Your task to perform on an android device: open app "Spotify: Music and Podcasts" (install if not already installed) Image 0: 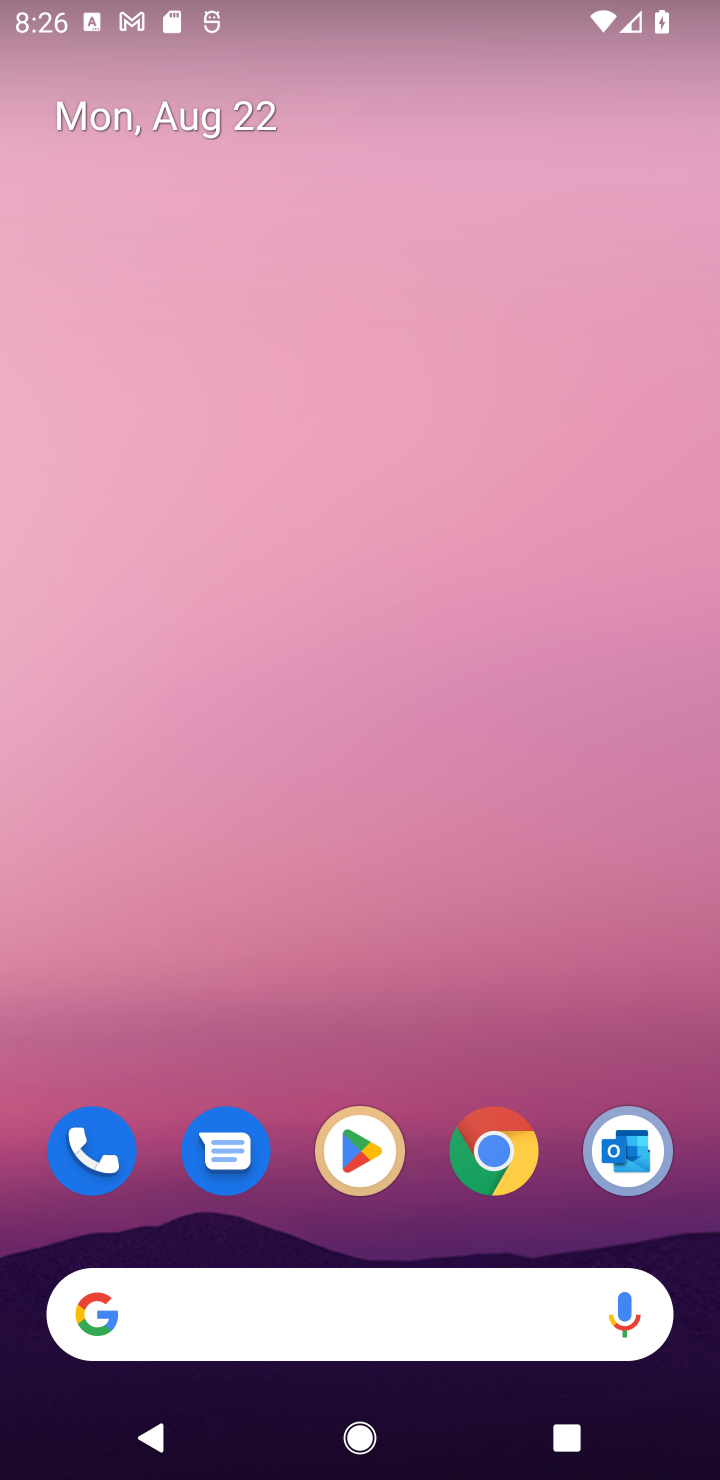
Step 0: click (372, 1152)
Your task to perform on an android device: open app "Spotify: Music and Podcasts" (install if not already installed) Image 1: 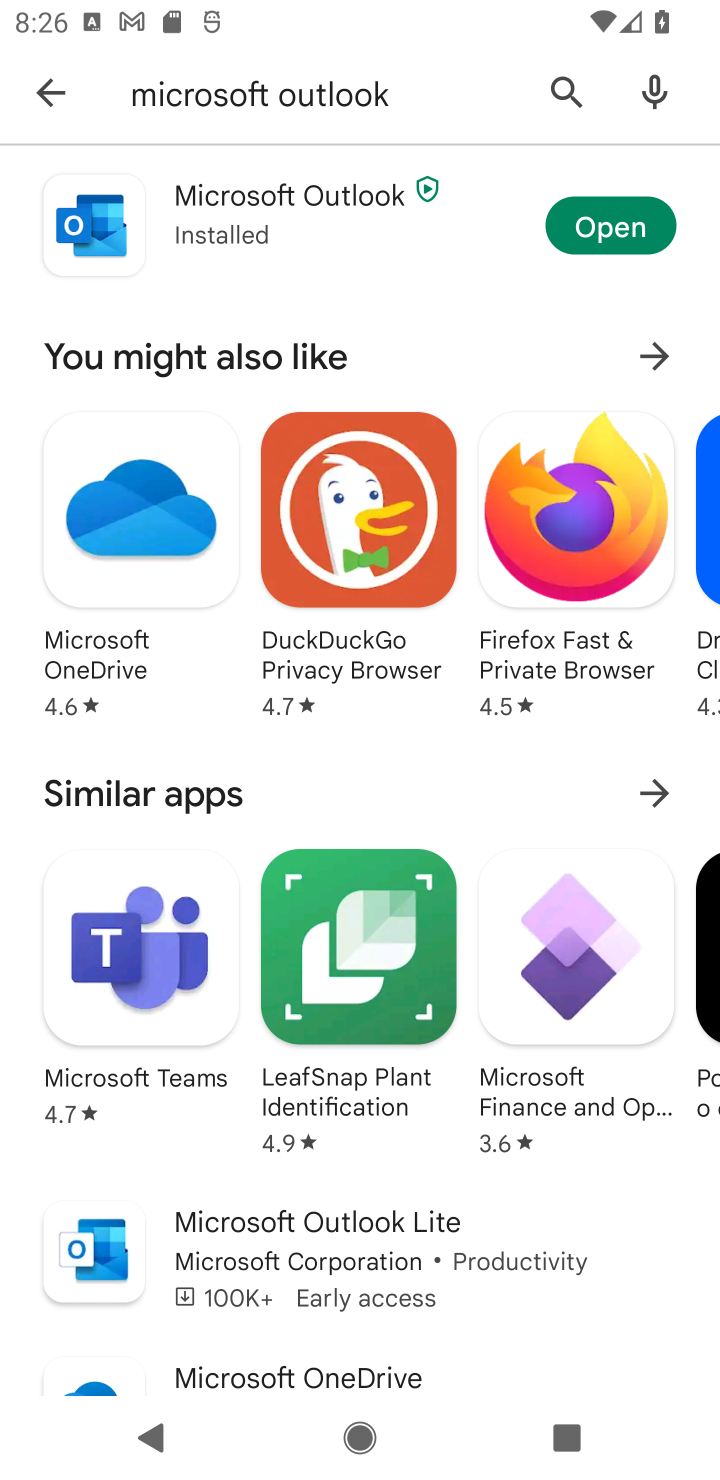
Step 1: click (564, 89)
Your task to perform on an android device: open app "Spotify: Music and Podcasts" (install if not already installed) Image 2: 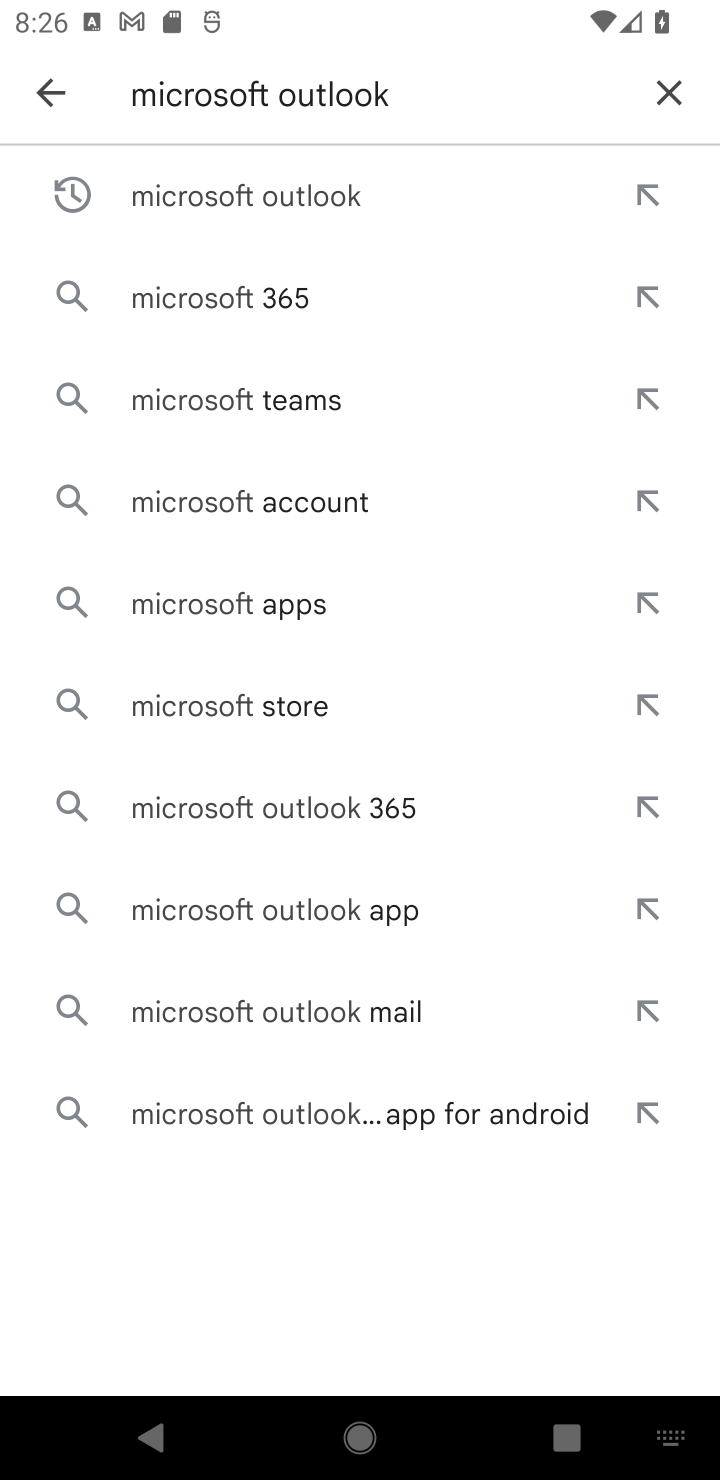
Step 2: click (656, 89)
Your task to perform on an android device: open app "Spotify: Music and Podcasts" (install if not already installed) Image 3: 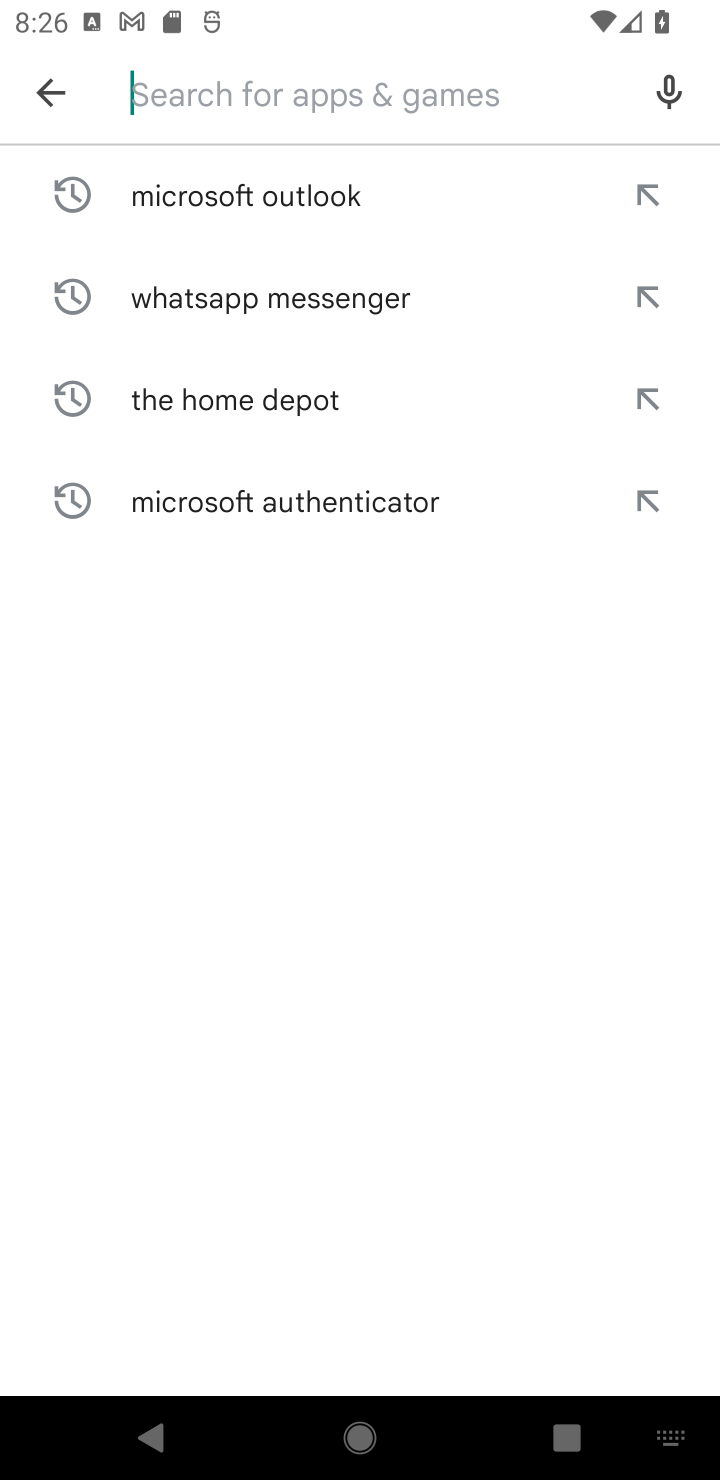
Step 3: type "Spotify: Music and Podcasts"
Your task to perform on an android device: open app "Spotify: Music and Podcasts" (install if not already installed) Image 4: 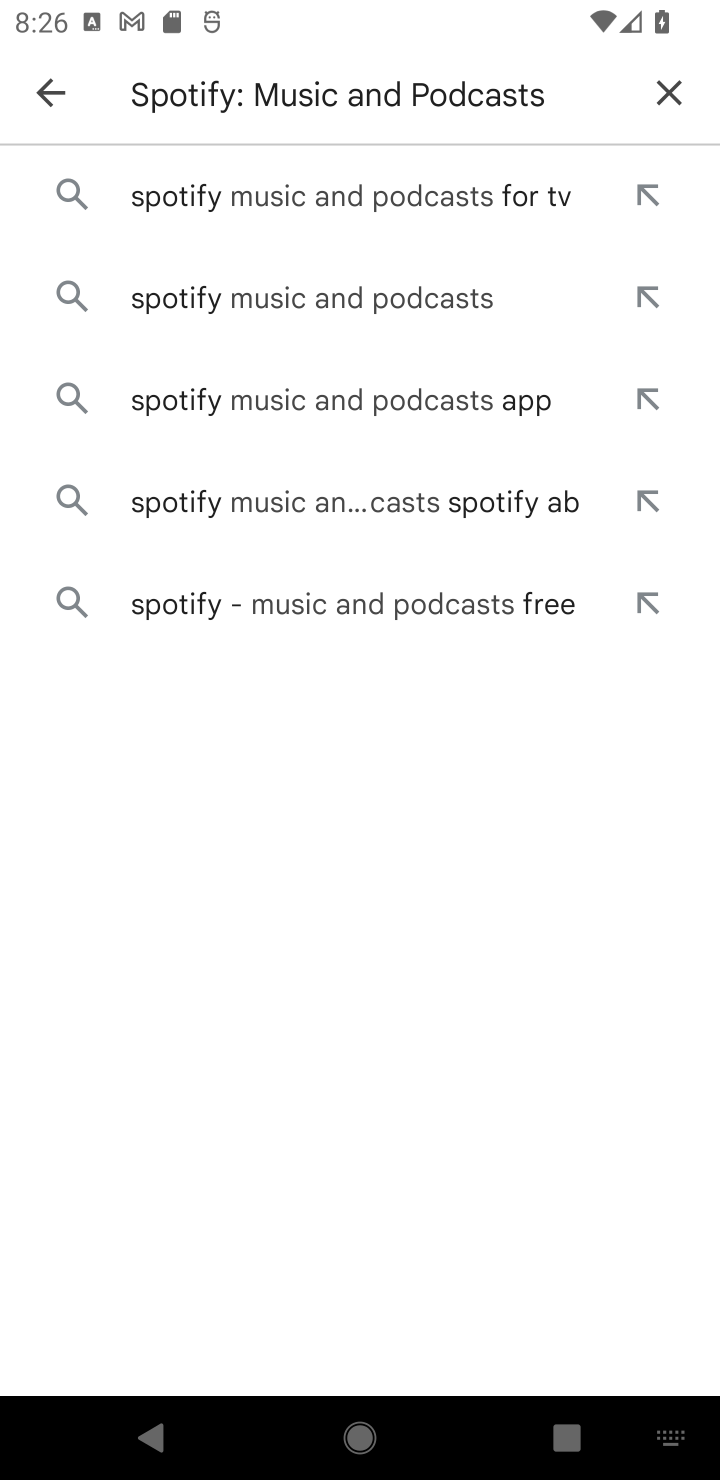
Step 4: click (437, 194)
Your task to perform on an android device: open app "Spotify: Music and Podcasts" (install if not already installed) Image 5: 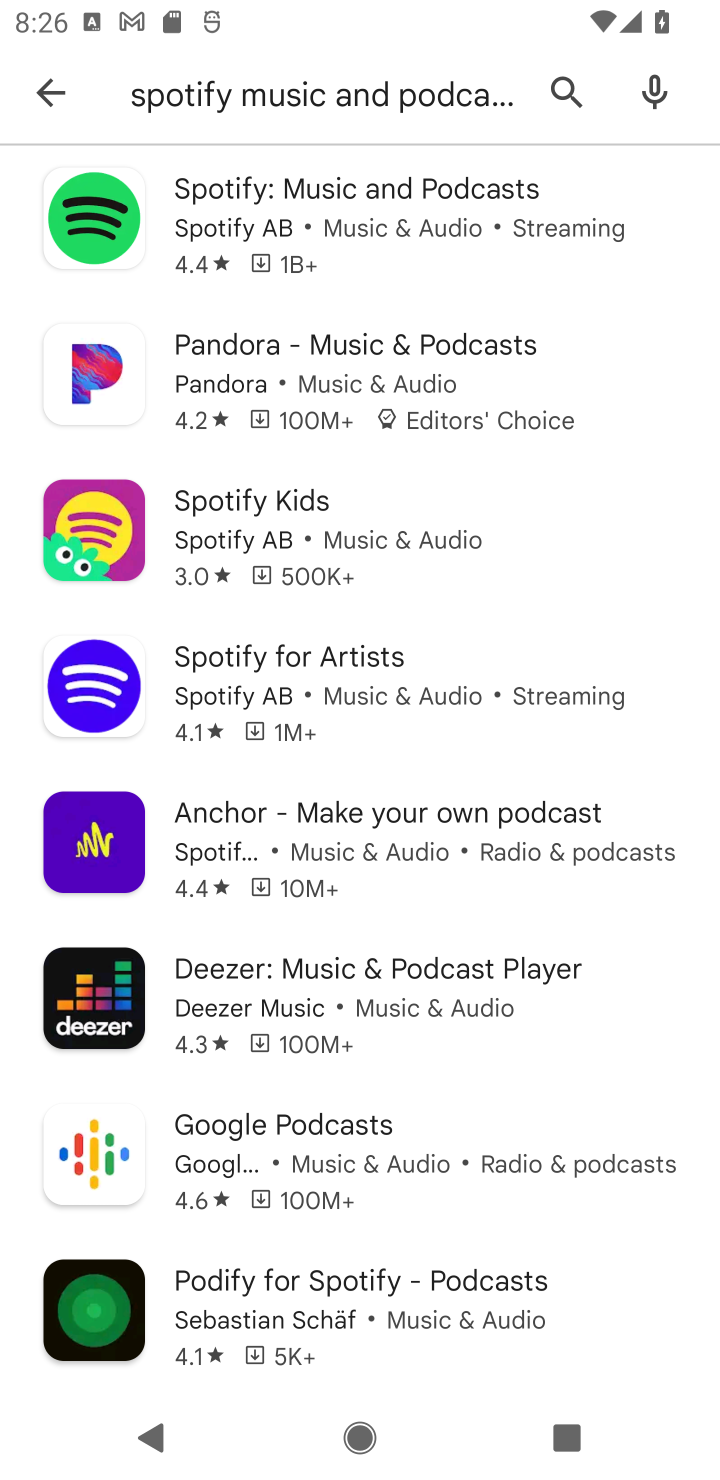
Step 5: click (429, 193)
Your task to perform on an android device: open app "Spotify: Music and Podcasts" (install if not already installed) Image 6: 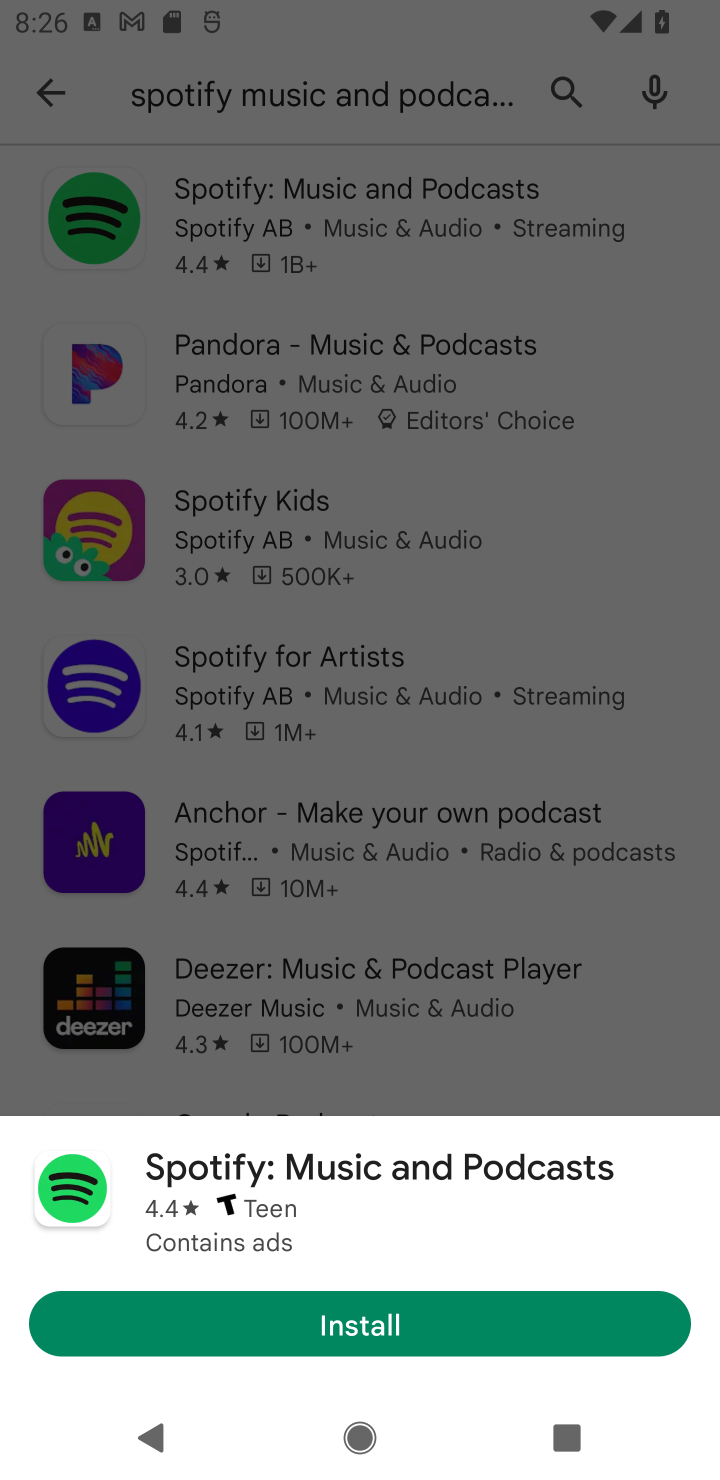
Step 6: click (363, 1326)
Your task to perform on an android device: open app "Spotify: Music and Podcasts" (install if not already installed) Image 7: 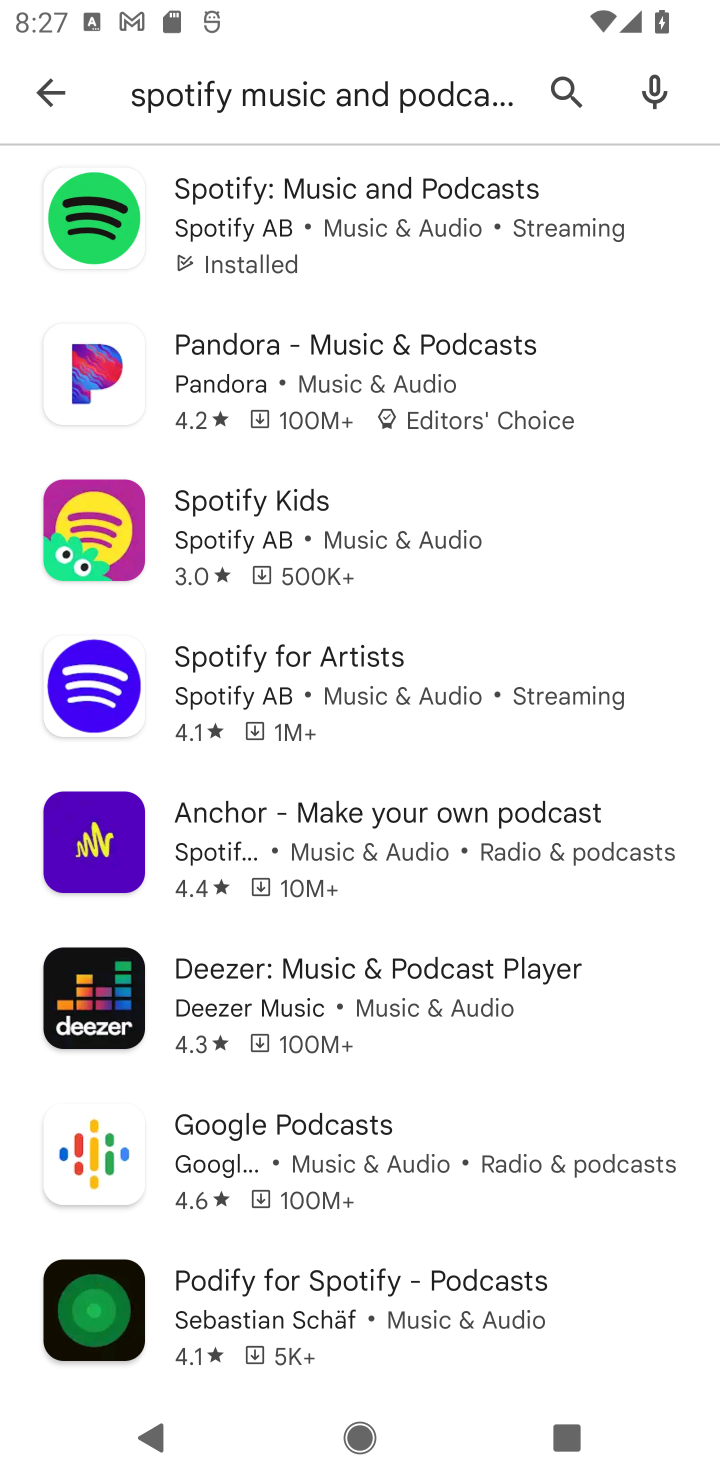
Step 7: click (245, 214)
Your task to perform on an android device: open app "Spotify: Music and Podcasts" (install if not already installed) Image 8: 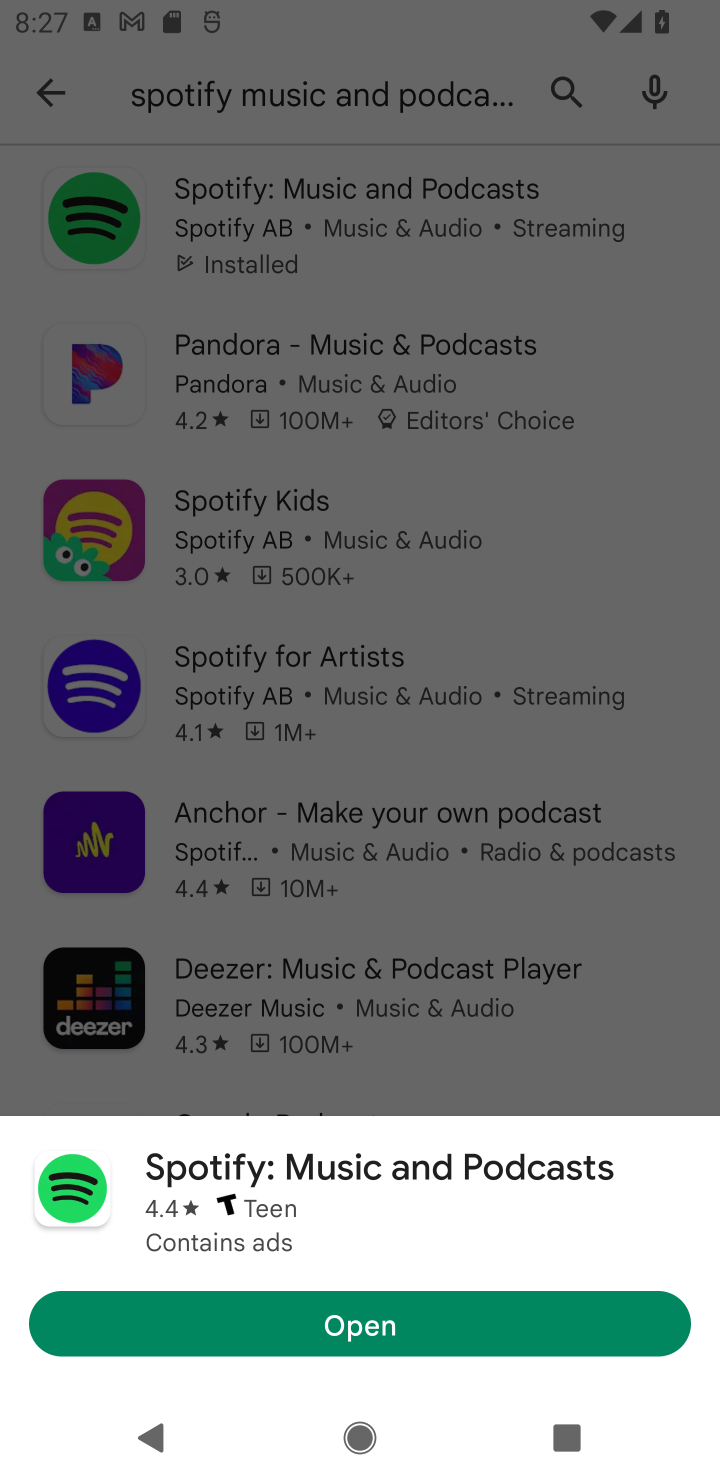
Step 8: click (382, 1337)
Your task to perform on an android device: open app "Spotify: Music and Podcasts" (install if not already installed) Image 9: 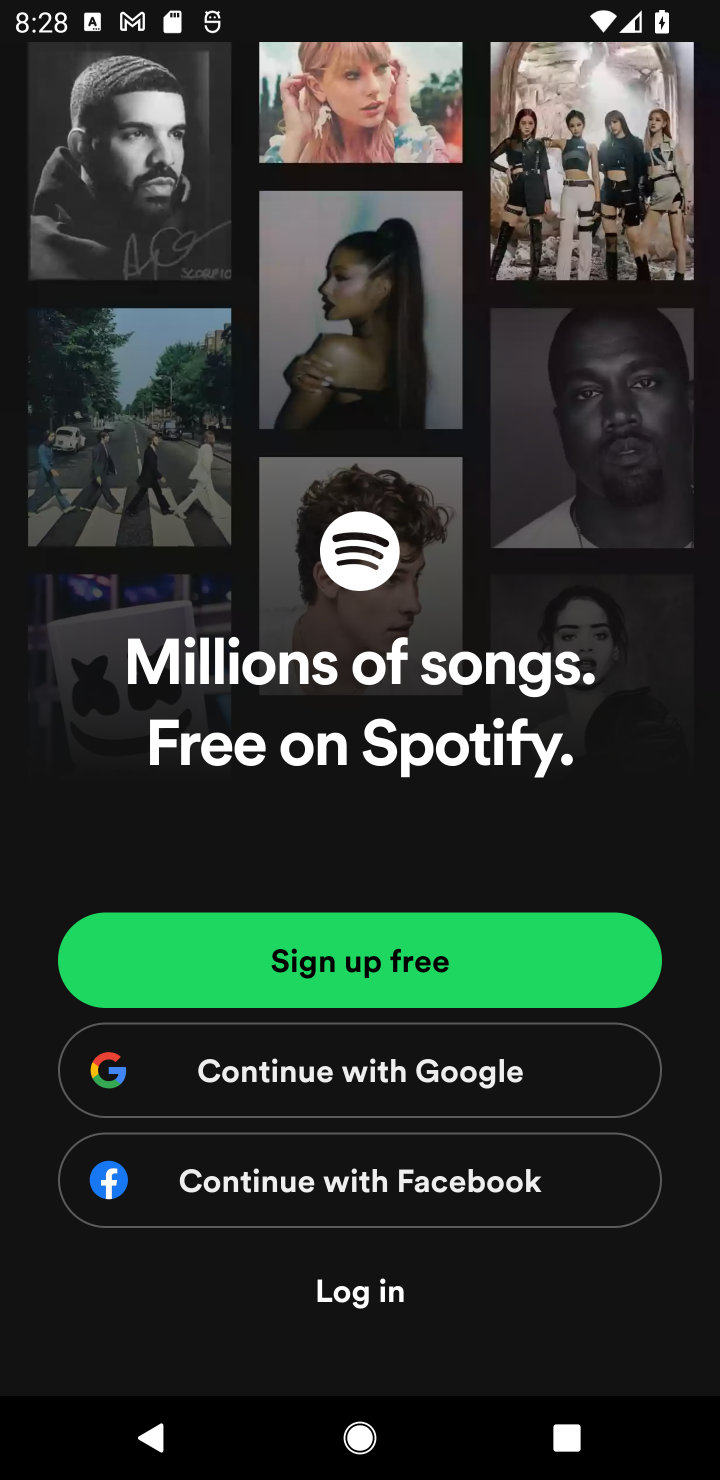
Step 9: task complete